Your task to perform on an android device: Show me the alarms in the clock app Image 0: 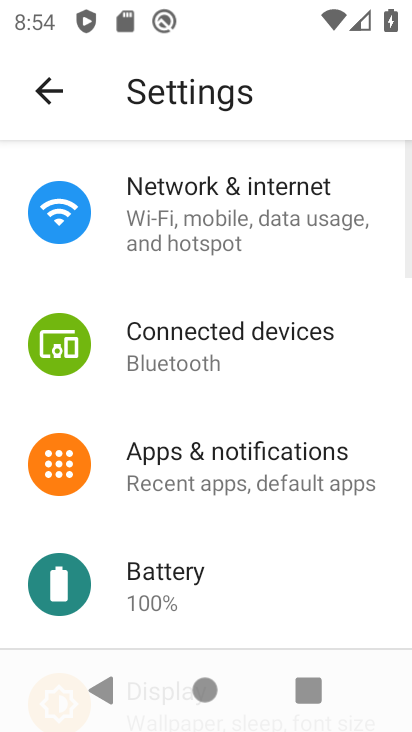
Step 0: press home button
Your task to perform on an android device: Show me the alarms in the clock app Image 1: 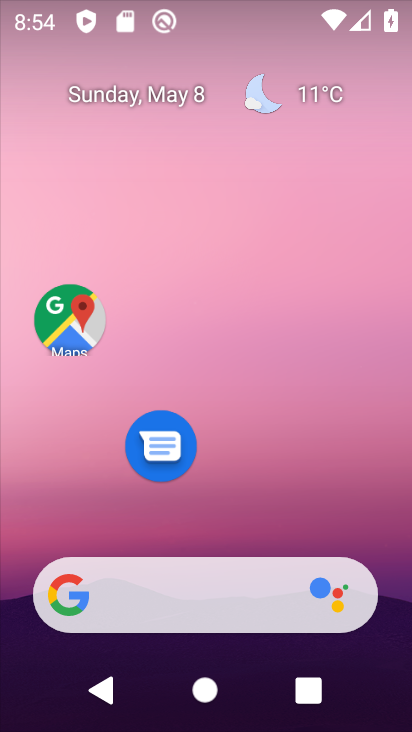
Step 1: drag from (351, 524) to (276, 62)
Your task to perform on an android device: Show me the alarms in the clock app Image 2: 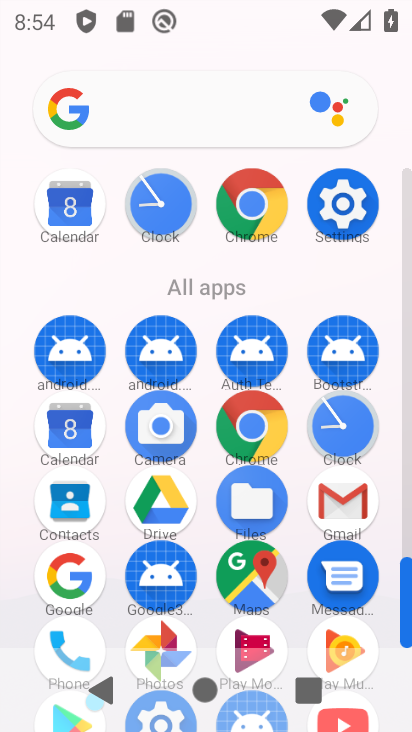
Step 2: click (363, 405)
Your task to perform on an android device: Show me the alarms in the clock app Image 3: 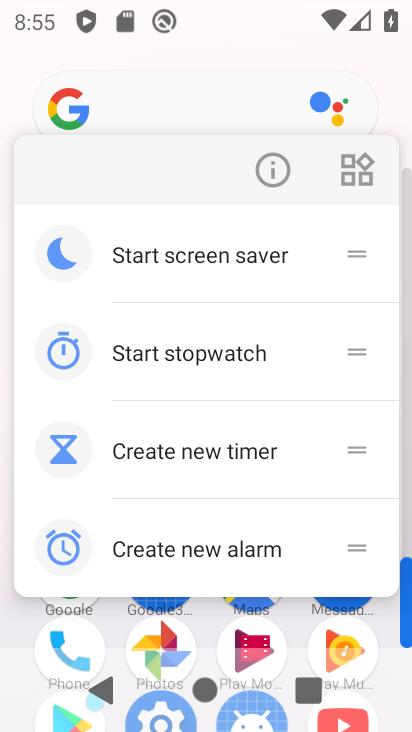
Step 3: click (213, 53)
Your task to perform on an android device: Show me the alarms in the clock app Image 4: 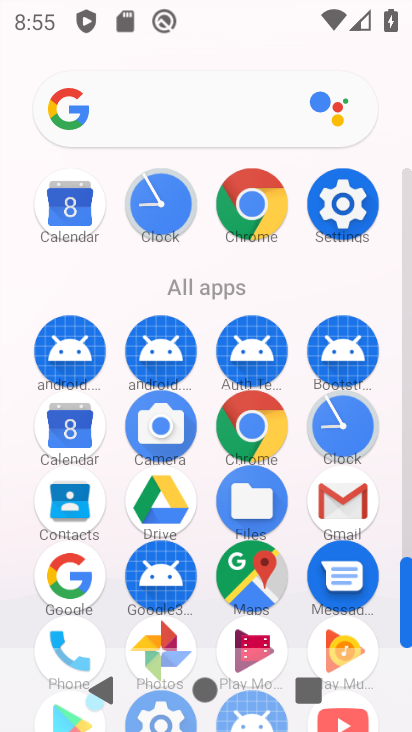
Step 4: click (346, 406)
Your task to perform on an android device: Show me the alarms in the clock app Image 5: 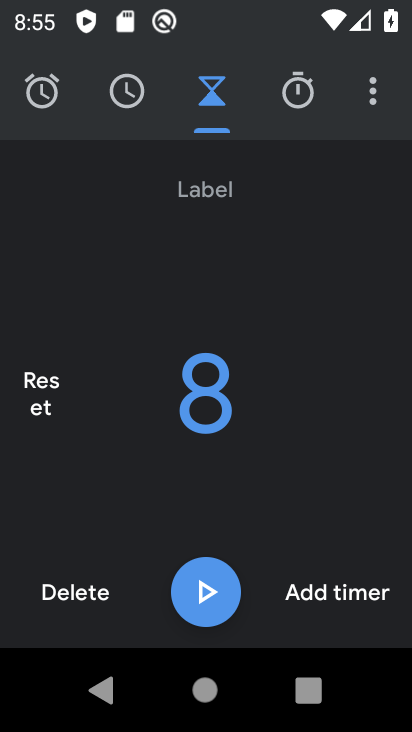
Step 5: click (128, 113)
Your task to perform on an android device: Show me the alarms in the clock app Image 6: 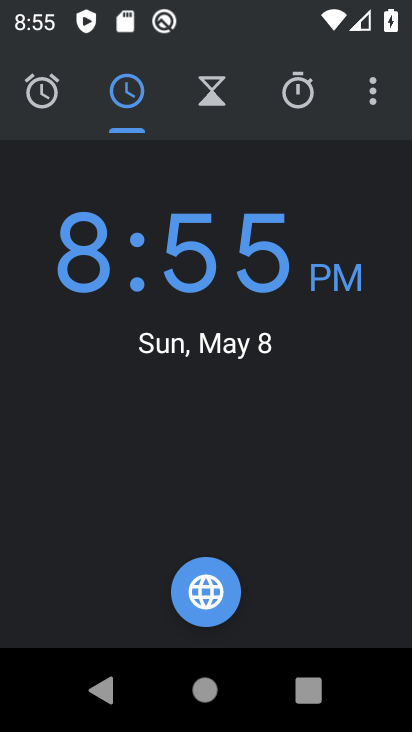
Step 6: click (25, 107)
Your task to perform on an android device: Show me the alarms in the clock app Image 7: 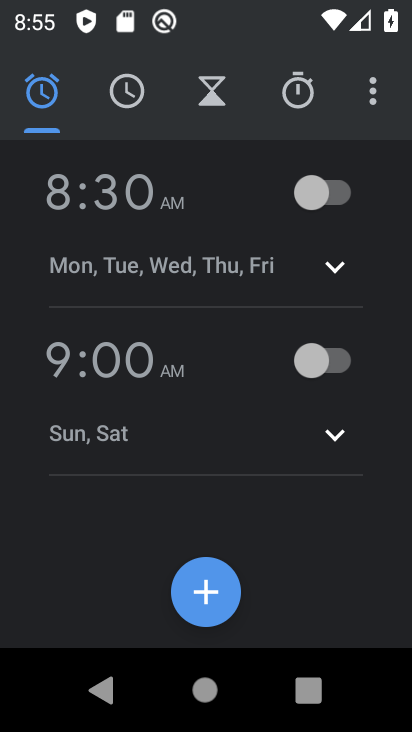
Step 7: task complete